Your task to perform on an android device: turn off data saver in the chrome app Image 0: 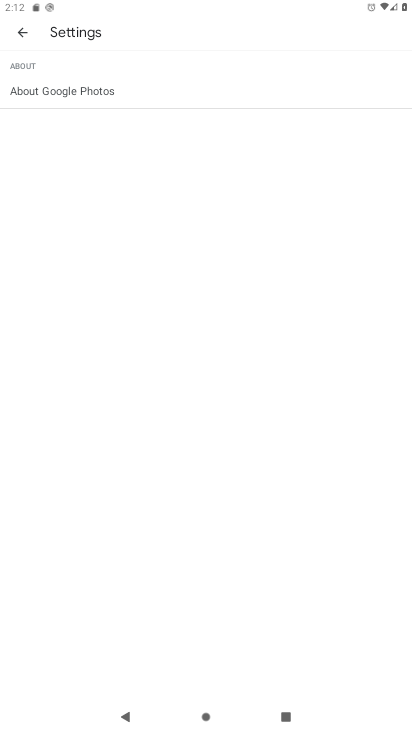
Step 0: press home button
Your task to perform on an android device: turn off data saver in the chrome app Image 1: 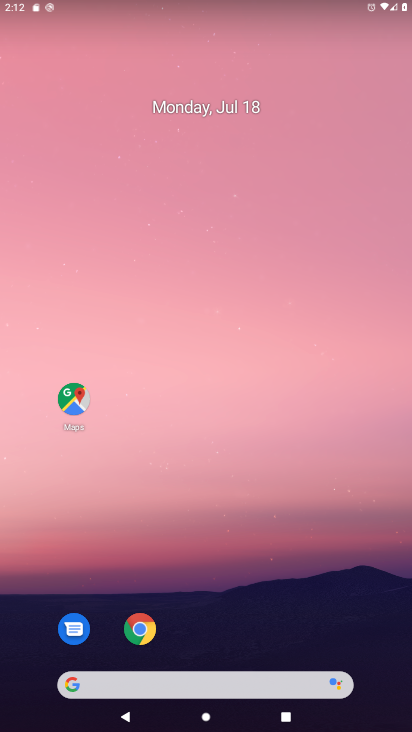
Step 1: click (146, 629)
Your task to perform on an android device: turn off data saver in the chrome app Image 2: 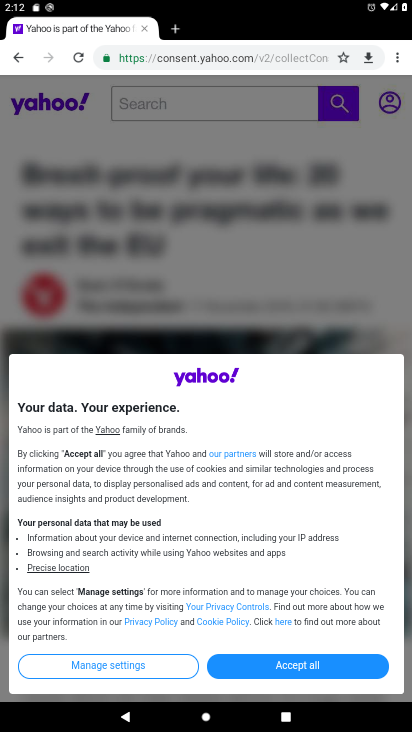
Step 2: click (398, 60)
Your task to perform on an android device: turn off data saver in the chrome app Image 3: 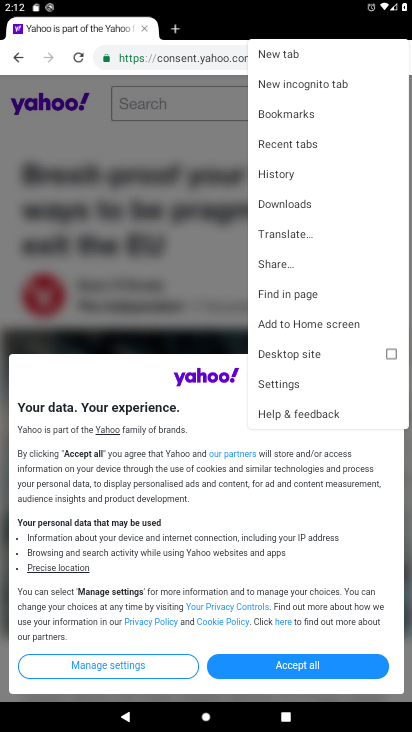
Step 3: click (287, 386)
Your task to perform on an android device: turn off data saver in the chrome app Image 4: 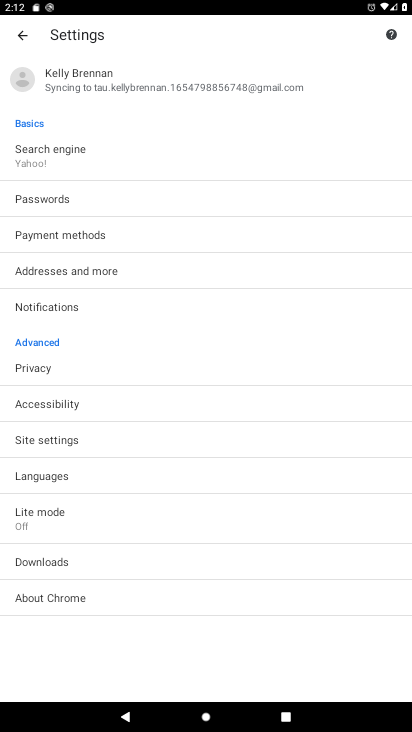
Step 4: click (54, 522)
Your task to perform on an android device: turn off data saver in the chrome app Image 5: 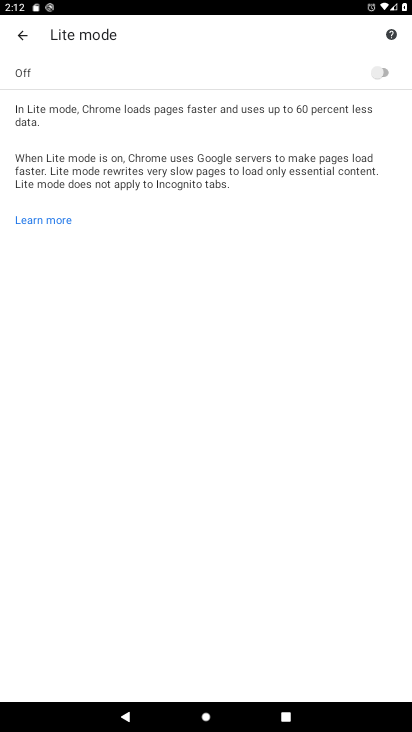
Step 5: task complete